Your task to perform on an android device: check google app version Image 0: 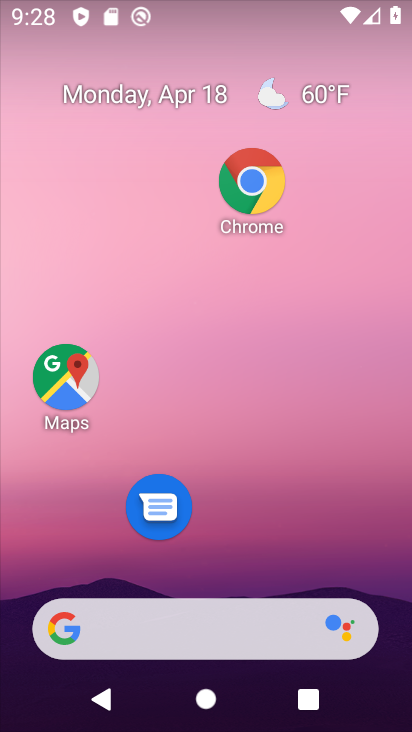
Step 0: drag from (198, 609) to (136, 220)
Your task to perform on an android device: check google app version Image 1: 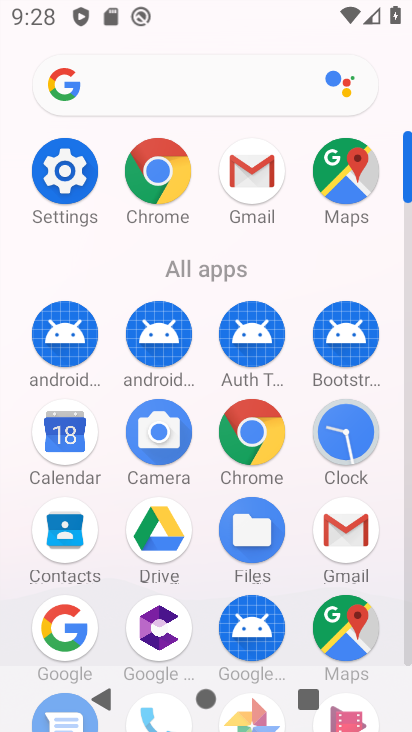
Step 1: click (73, 622)
Your task to perform on an android device: check google app version Image 2: 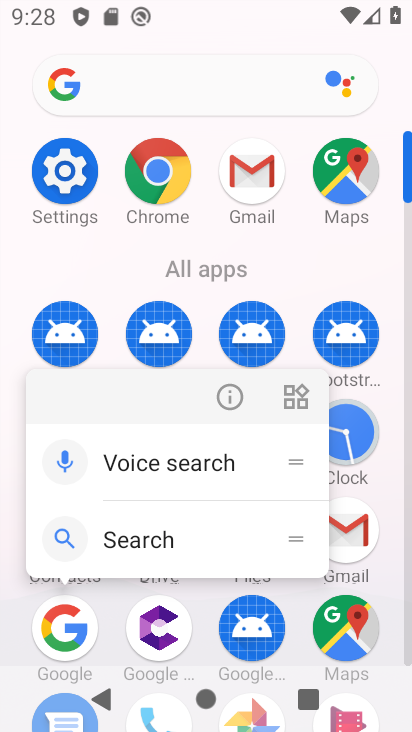
Step 2: click (237, 397)
Your task to perform on an android device: check google app version Image 3: 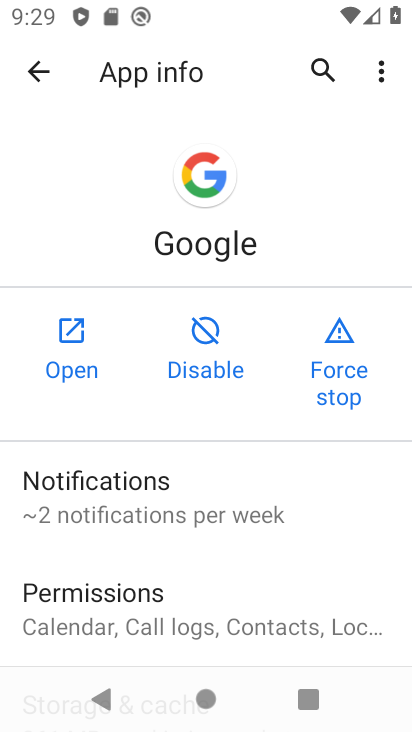
Step 3: drag from (126, 577) to (98, 79)
Your task to perform on an android device: check google app version Image 4: 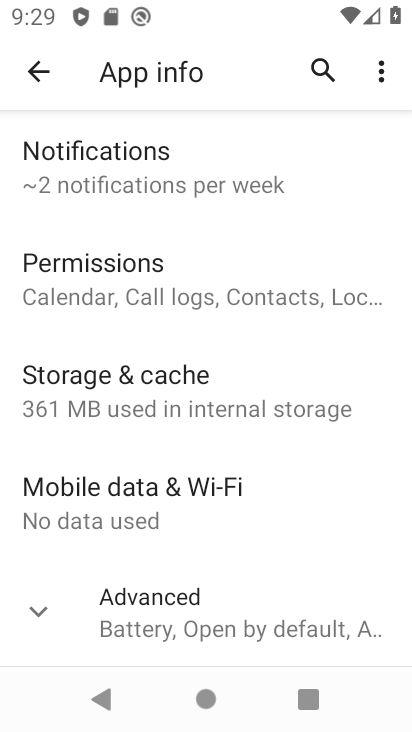
Step 4: click (164, 603)
Your task to perform on an android device: check google app version Image 5: 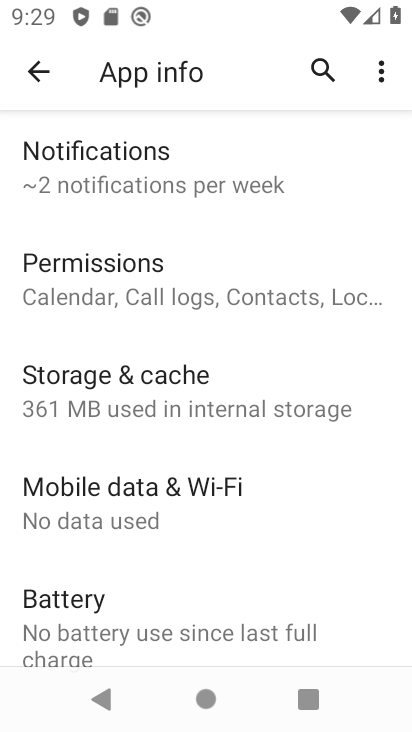
Step 5: task complete